Your task to perform on an android device: Open sound settings Image 0: 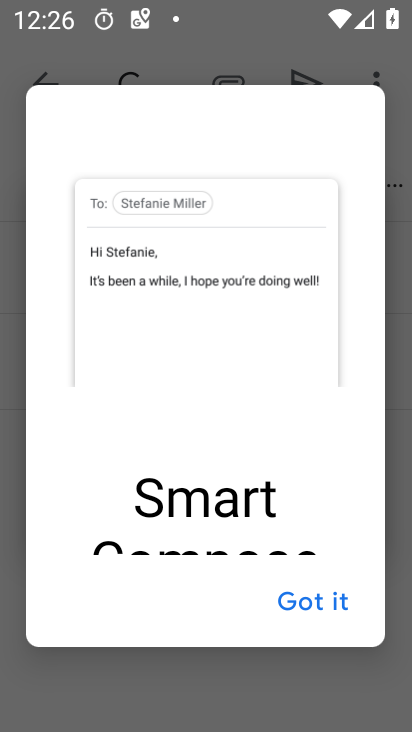
Step 0: press home button
Your task to perform on an android device: Open sound settings Image 1: 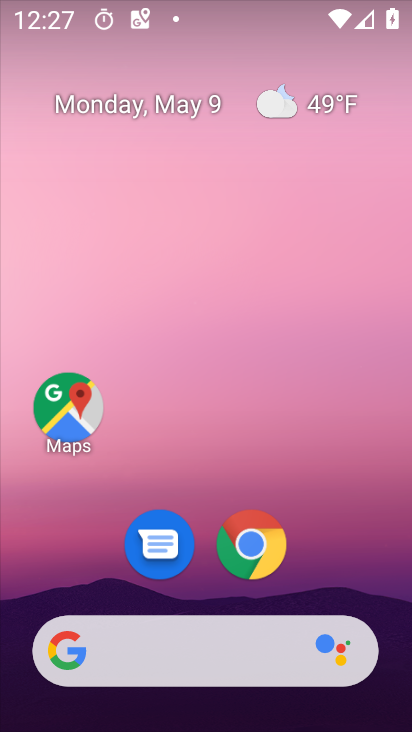
Step 1: drag from (333, 604) to (325, 59)
Your task to perform on an android device: Open sound settings Image 2: 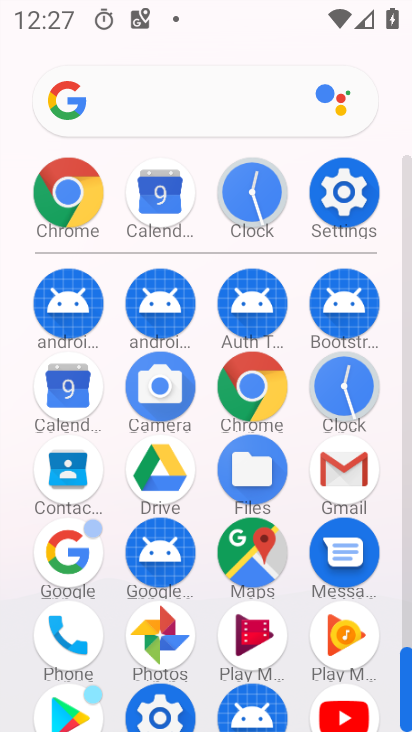
Step 2: click (337, 202)
Your task to perform on an android device: Open sound settings Image 3: 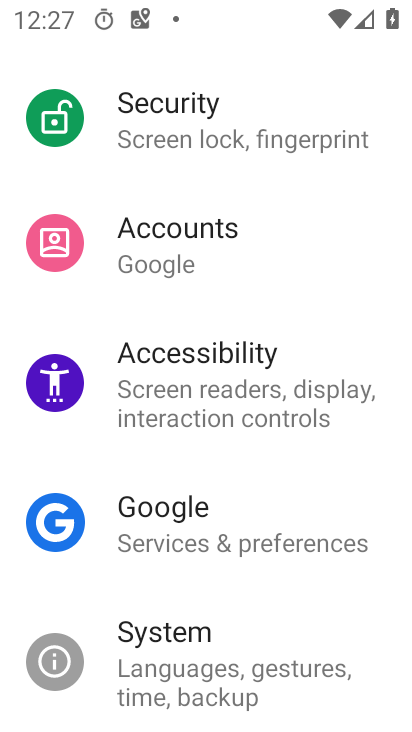
Step 3: drag from (195, 160) to (203, 721)
Your task to perform on an android device: Open sound settings Image 4: 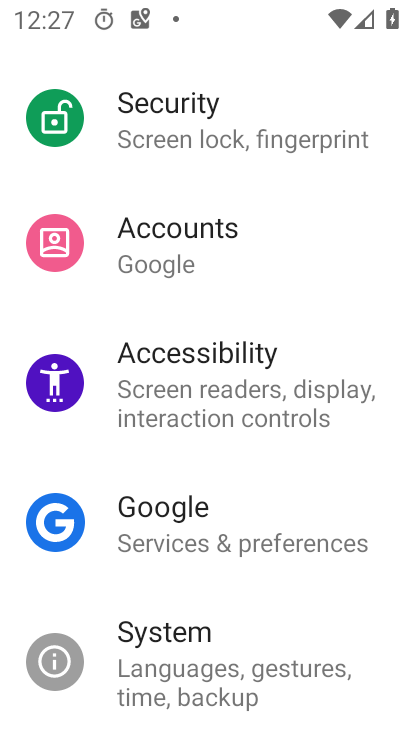
Step 4: drag from (188, 124) to (217, 730)
Your task to perform on an android device: Open sound settings Image 5: 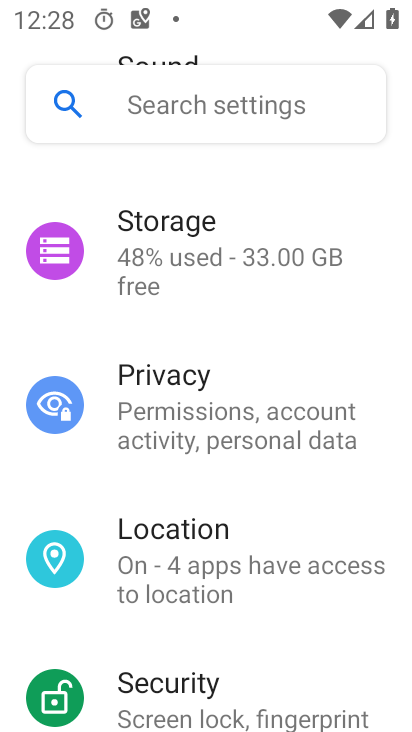
Step 5: drag from (208, 179) to (201, 674)
Your task to perform on an android device: Open sound settings Image 6: 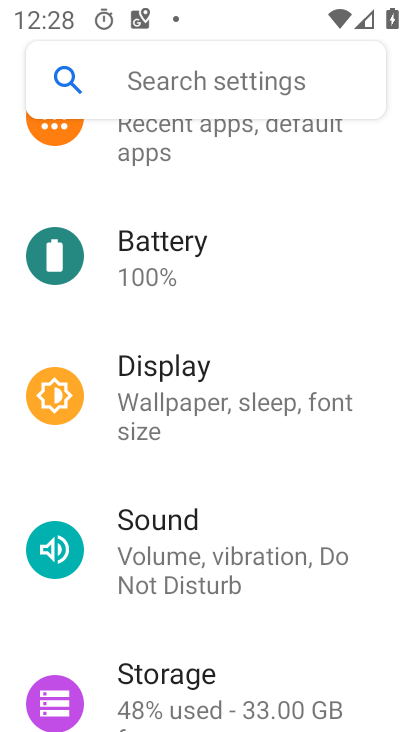
Step 6: click (215, 569)
Your task to perform on an android device: Open sound settings Image 7: 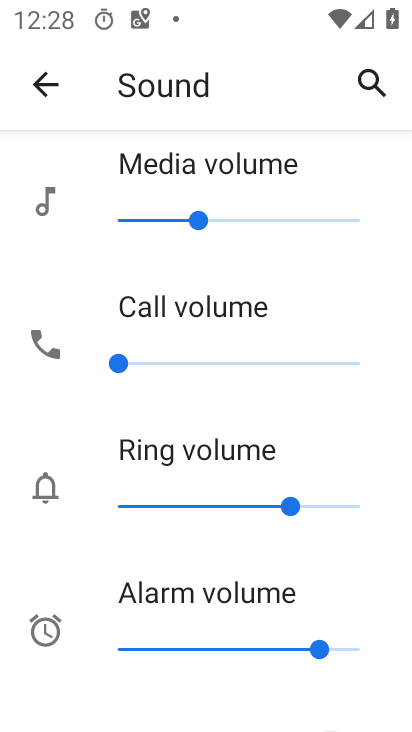
Step 7: task complete